Your task to perform on an android device: turn off data saver in the chrome app Image 0: 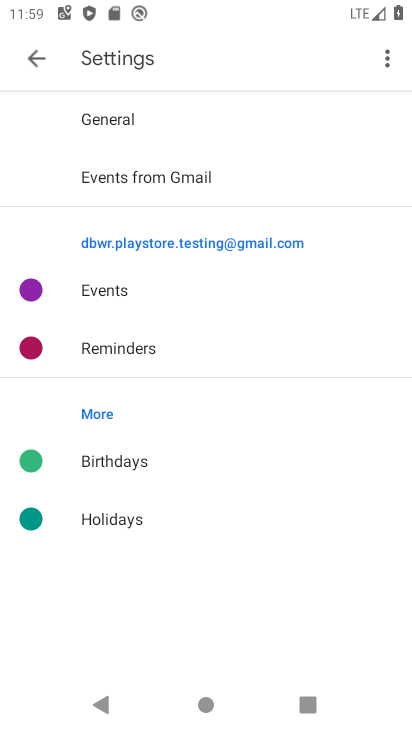
Step 0: drag from (204, 565) to (247, 226)
Your task to perform on an android device: turn off data saver in the chrome app Image 1: 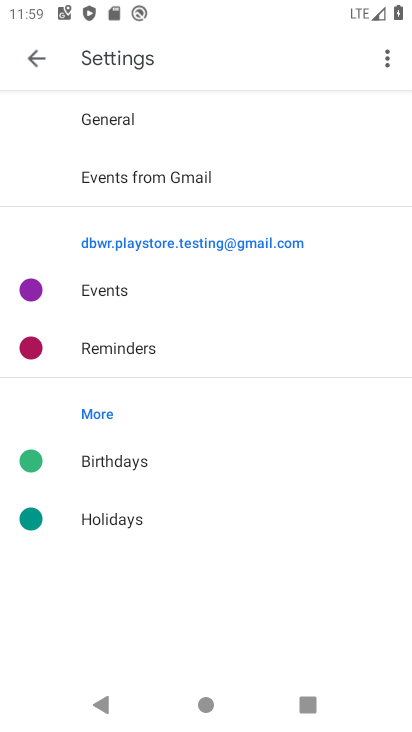
Step 1: drag from (150, 556) to (255, 146)
Your task to perform on an android device: turn off data saver in the chrome app Image 2: 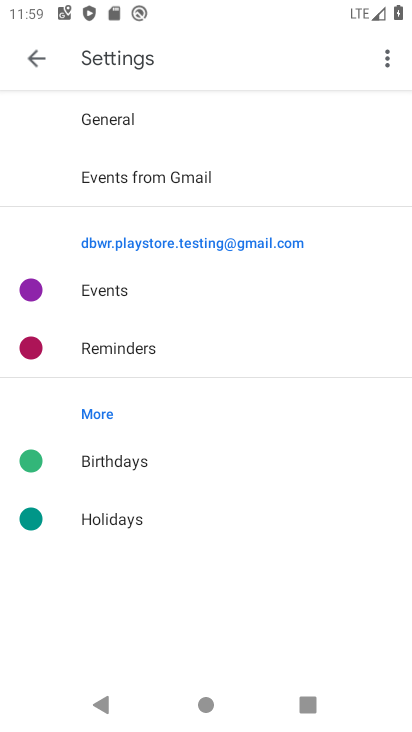
Step 2: press home button
Your task to perform on an android device: turn off data saver in the chrome app Image 3: 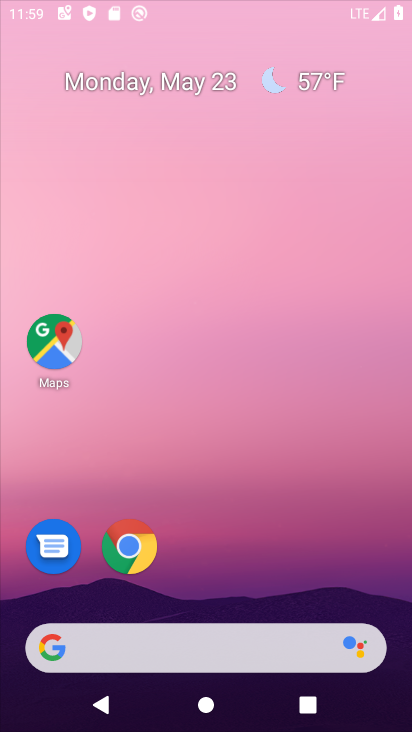
Step 3: drag from (147, 599) to (206, 184)
Your task to perform on an android device: turn off data saver in the chrome app Image 4: 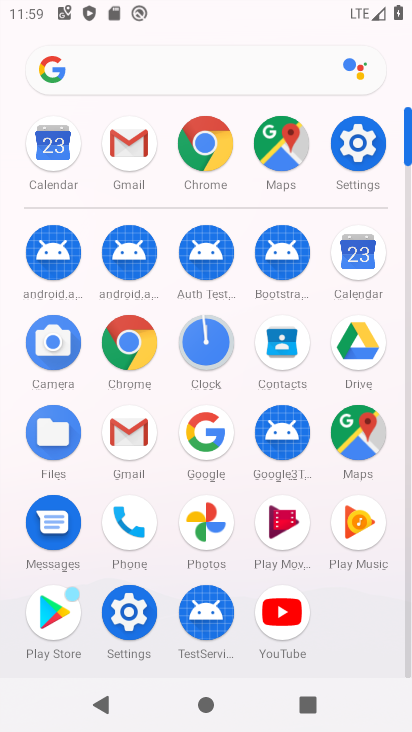
Step 4: click (127, 341)
Your task to perform on an android device: turn off data saver in the chrome app Image 5: 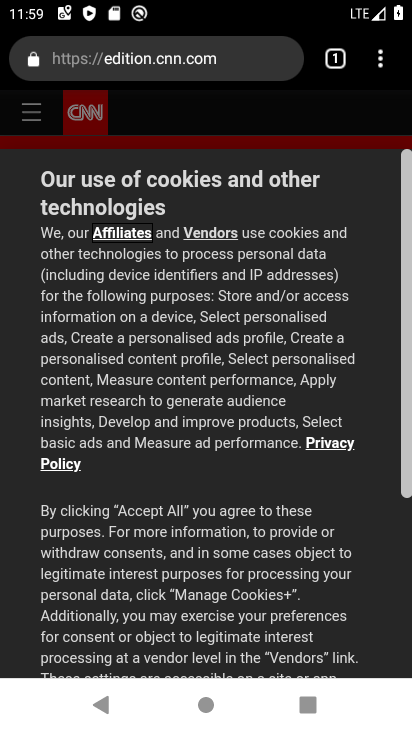
Step 5: click (383, 71)
Your task to perform on an android device: turn off data saver in the chrome app Image 6: 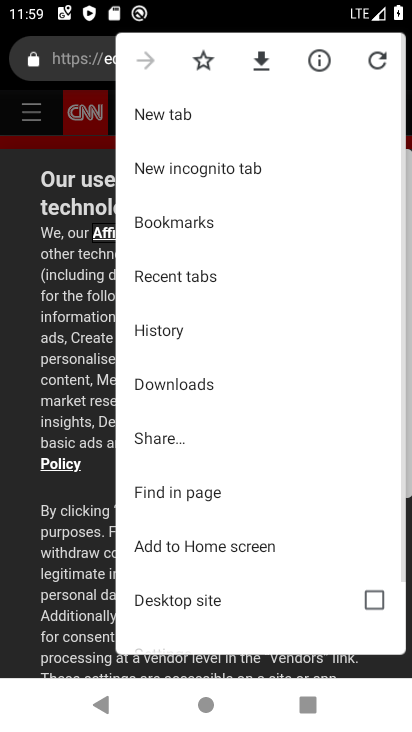
Step 6: drag from (232, 571) to (313, 144)
Your task to perform on an android device: turn off data saver in the chrome app Image 7: 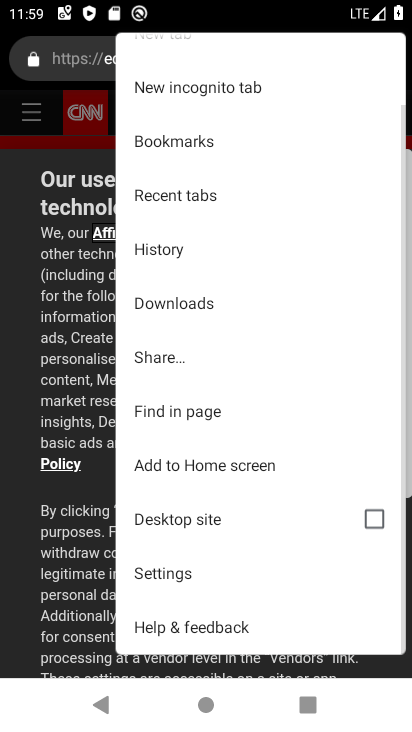
Step 7: click (186, 563)
Your task to perform on an android device: turn off data saver in the chrome app Image 8: 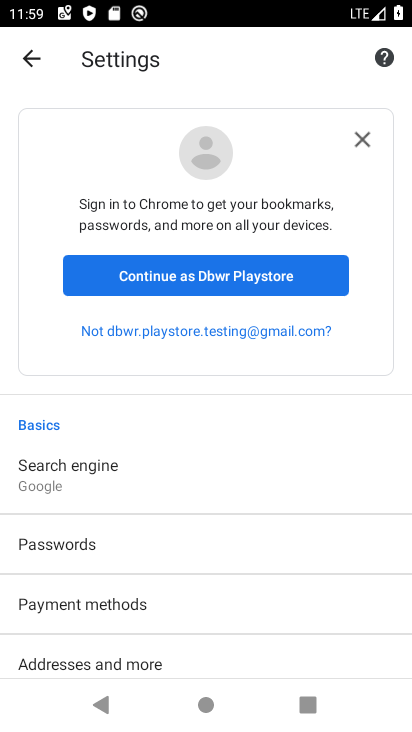
Step 8: drag from (153, 604) to (265, 144)
Your task to perform on an android device: turn off data saver in the chrome app Image 9: 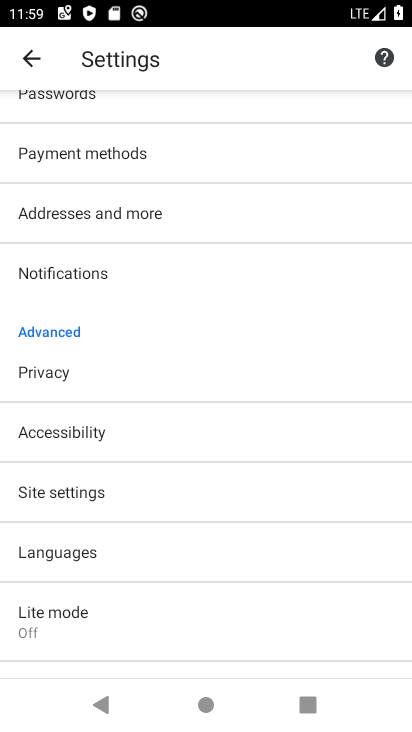
Step 9: click (94, 471)
Your task to perform on an android device: turn off data saver in the chrome app Image 10: 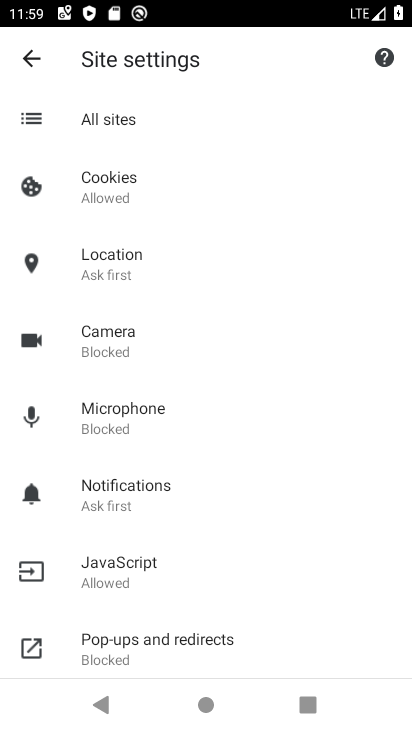
Step 10: drag from (189, 590) to (214, 122)
Your task to perform on an android device: turn off data saver in the chrome app Image 11: 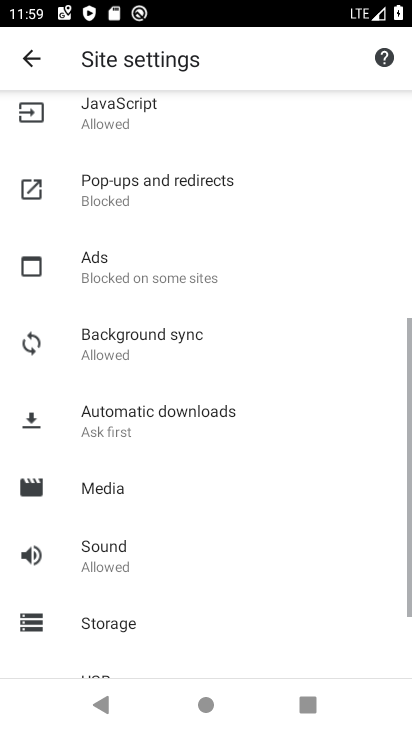
Step 11: drag from (146, 574) to (217, 178)
Your task to perform on an android device: turn off data saver in the chrome app Image 12: 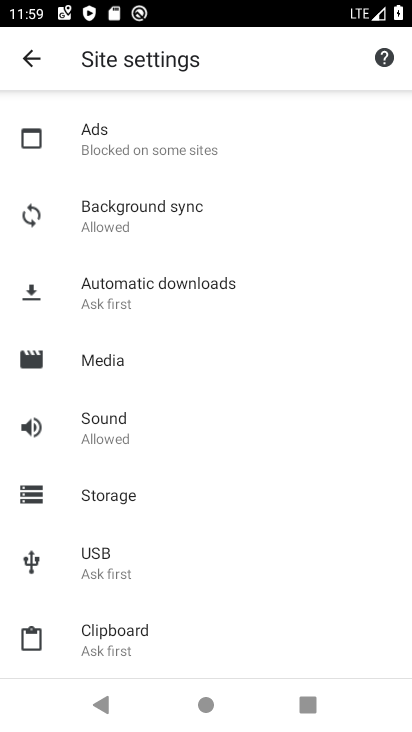
Step 12: click (29, 66)
Your task to perform on an android device: turn off data saver in the chrome app Image 13: 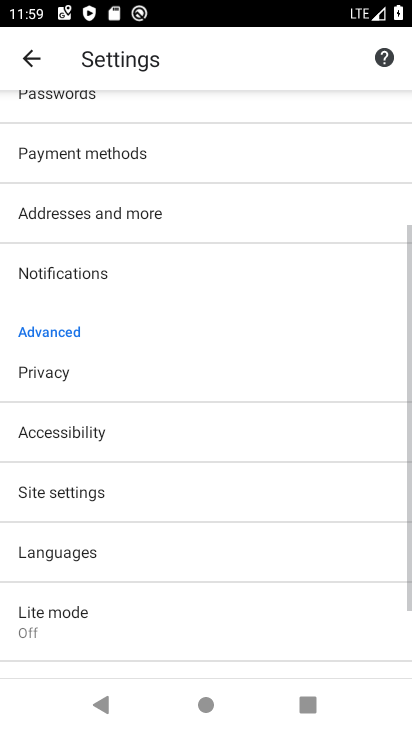
Step 13: drag from (125, 612) to (229, 145)
Your task to perform on an android device: turn off data saver in the chrome app Image 14: 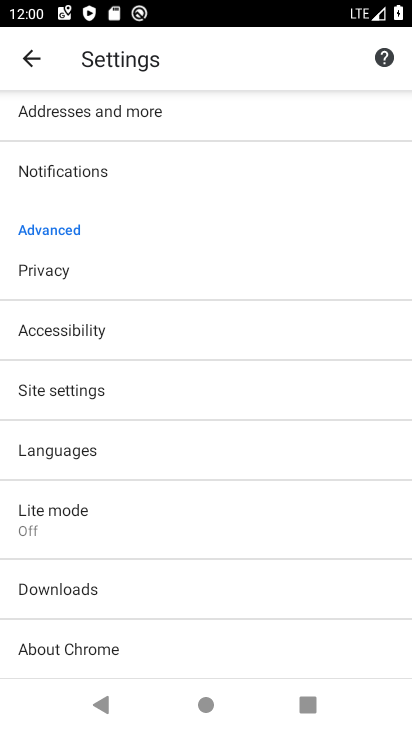
Step 14: click (93, 540)
Your task to perform on an android device: turn off data saver in the chrome app Image 15: 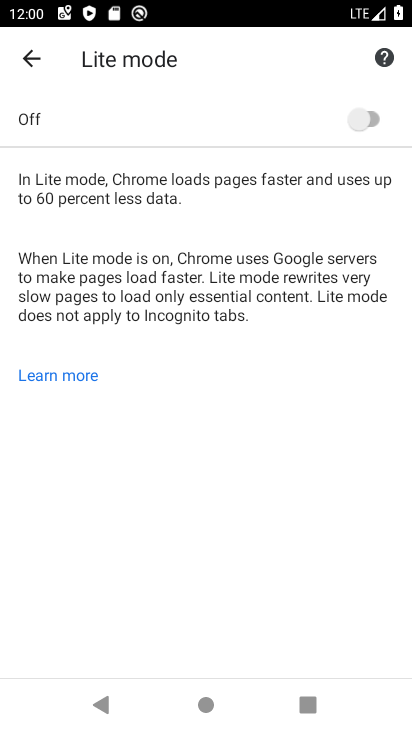
Step 15: task complete